Your task to perform on an android device: Open privacy settings Image 0: 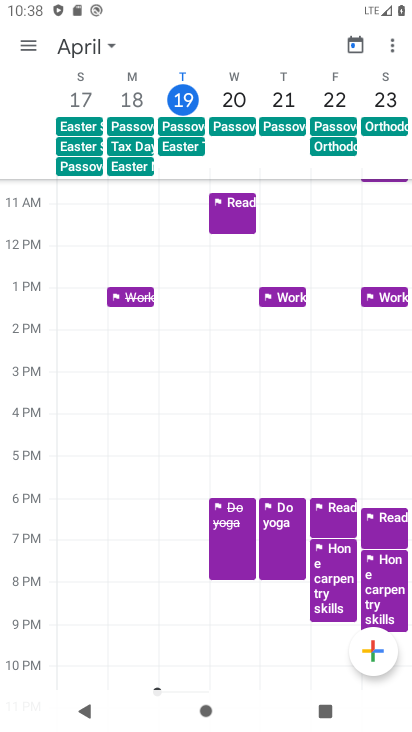
Step 0: press home button
Your task to perform on an android device: Open privacy settings Image 1: 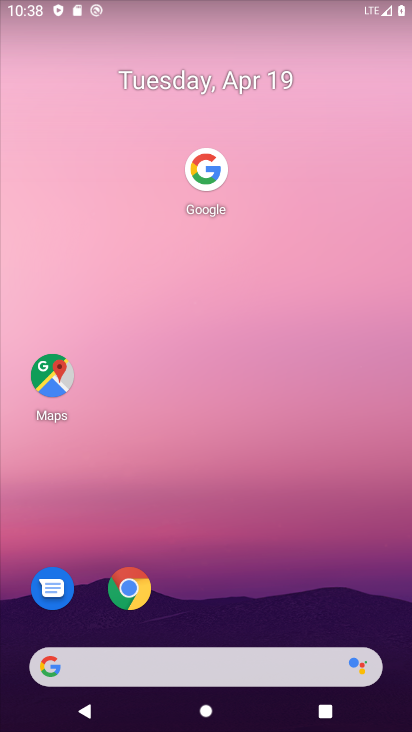
Step 1: drag from (256, 589) to (281, 163)
Your task to perform on an android device: Open privacy settings Image 2: 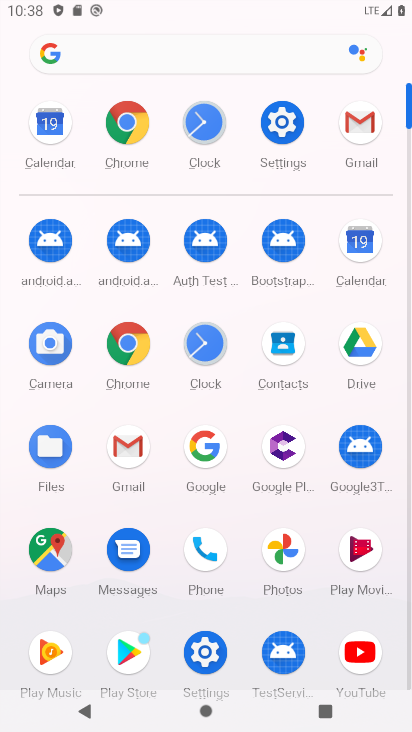
Step 2: click (280, 124)
Your task to perform on an android device: Open privacy settings Image 3: 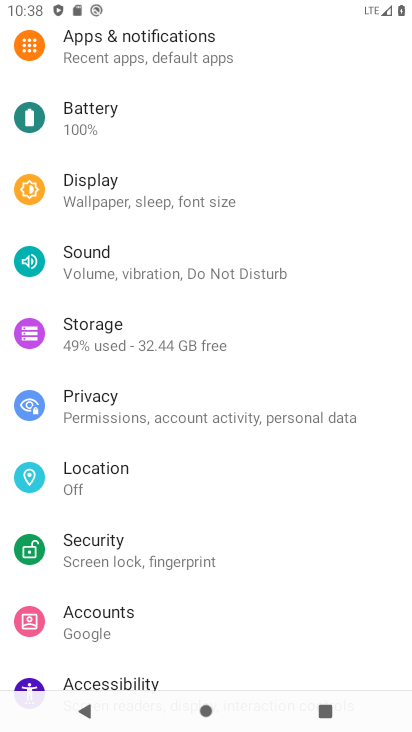
Step 3: click (95, 391)
Your task to perform on an android device: Open privacy settings Image 4: 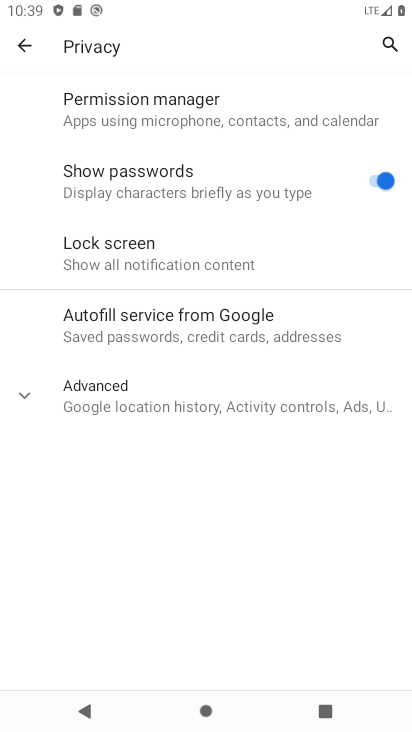
Step 4: task complete